Your task to perform on an android device: change your default location settings in chrome Image 0: 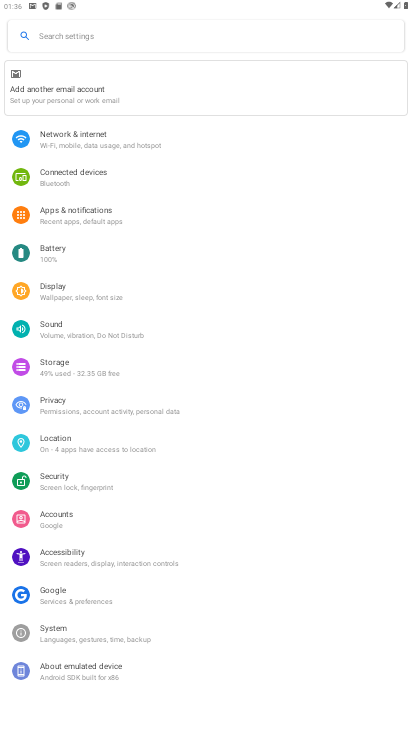
Step 0: press home button
Your task to perform on an android device: change your default location settings in chrome Image 1: 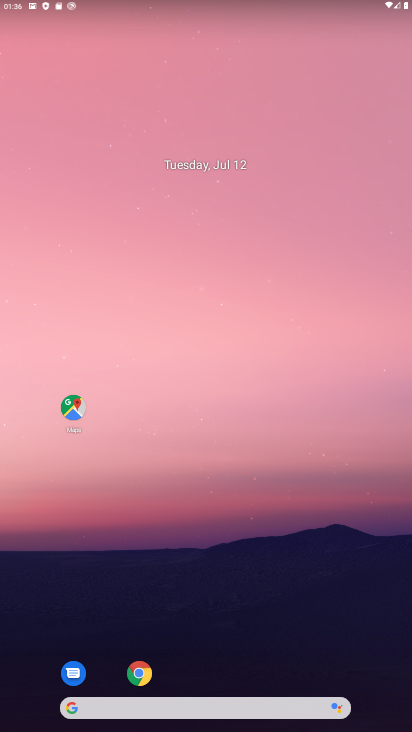
Step 1: click (144, 669)
Your task to perform on an android device: change your default location settings in chrome Image 2: 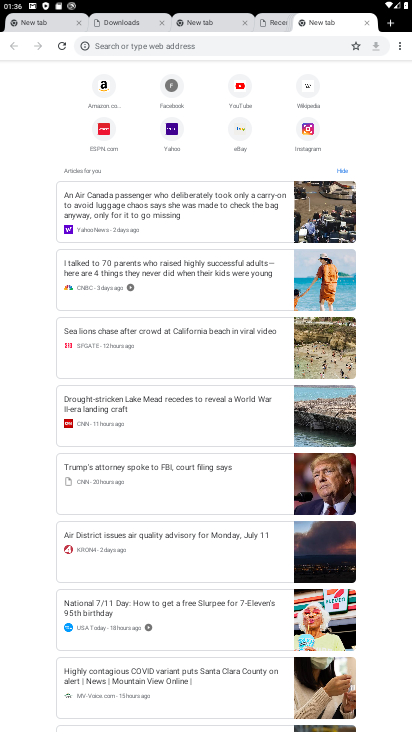
Step 2: drag from (396, 45) to (310, 208)
Your task to perform on an android device: change your default location settings in chrome Image 3: 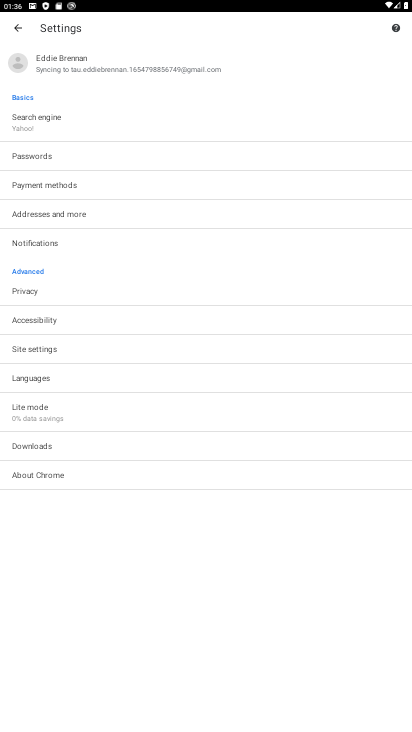
Step 3: click (22, 349)
Your task to perform on an android device: change your default location settings in chrome Image 4: 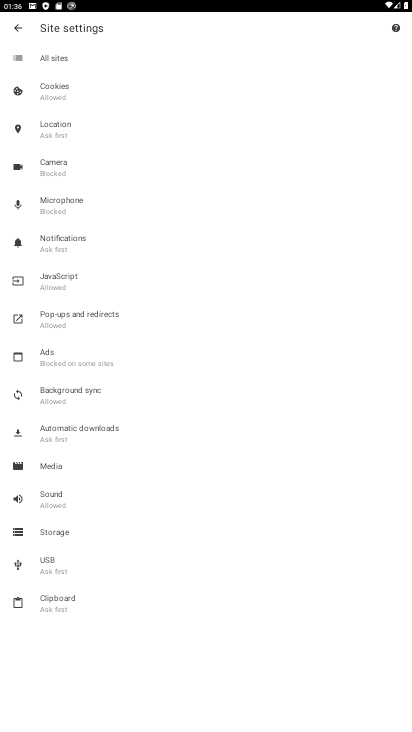
Step 4: click (62, 122)
Your task to perform on an android device: change your default location settings in chrome Image 5: 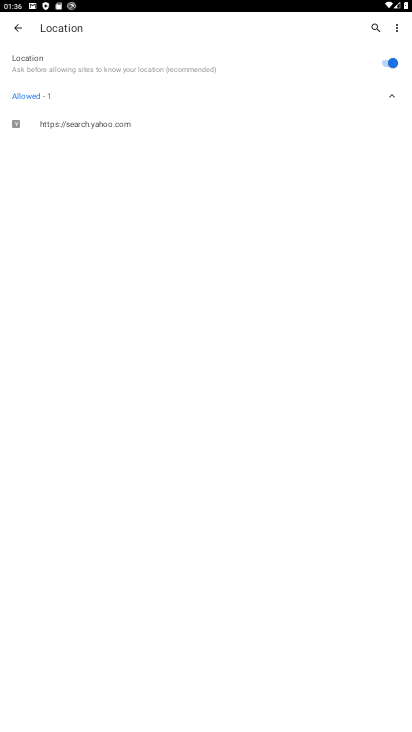
Step 5: click (388, 60)
Your task to perform on an android device: change your default location settings in chrome Image 6: 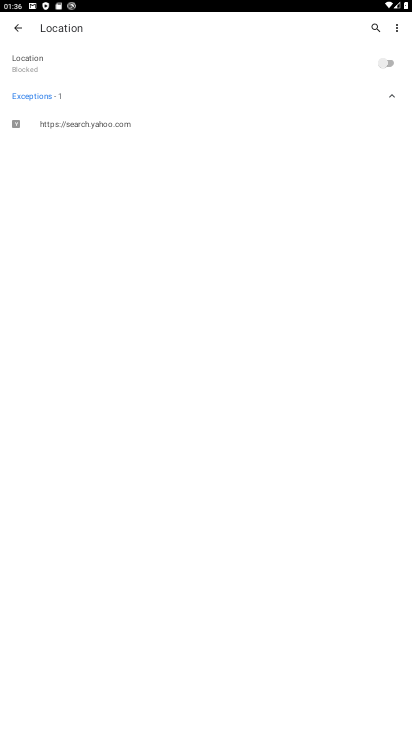
Step 6: task complete